Your task to perform on an android device: Open maps Image 0: 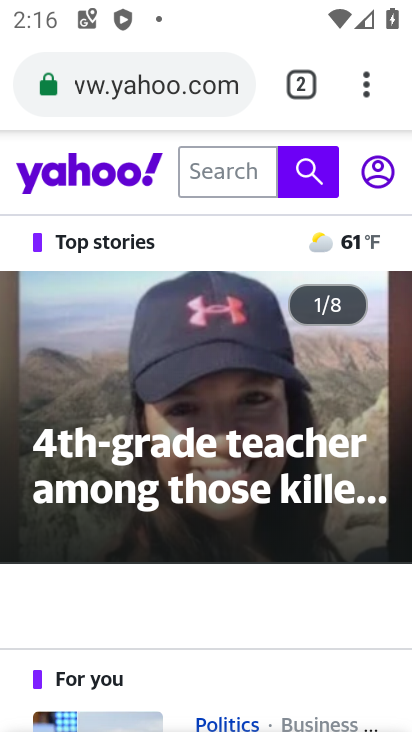
Step 0: press home button
Your task to perform on an android device: Open maps Image 1: 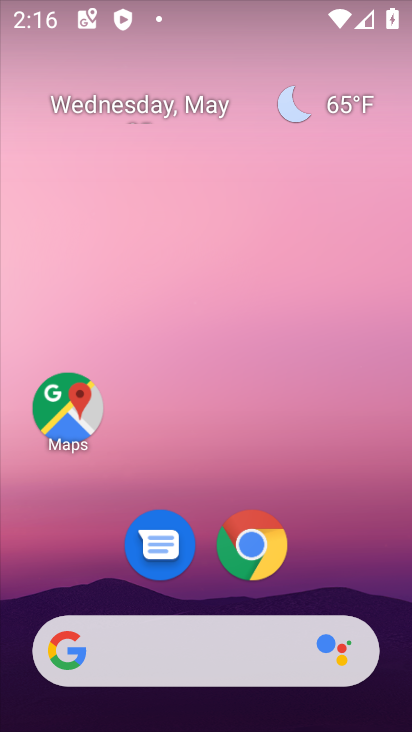
Step 1: click (77, 407)
Your task to perform on an android device: Open maps Image 2: 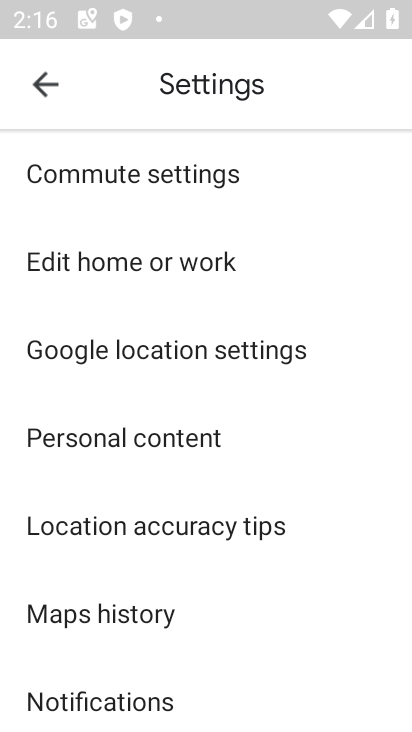
Step 2: click (47, 85)
Your task to perform on an android device: Open maps Image 3: 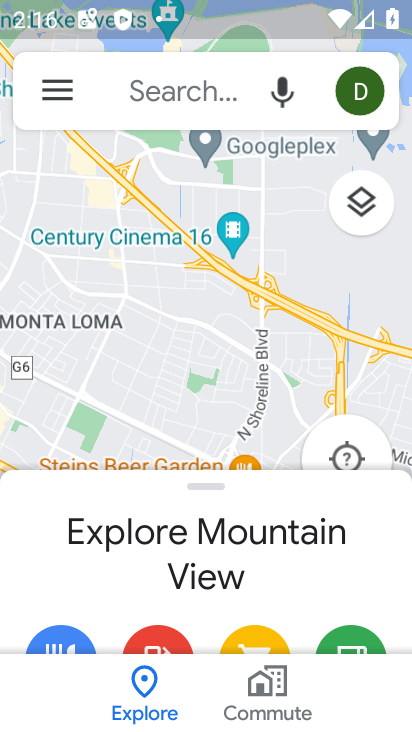
Step 3: task complete